Your task to perform on an android device: Add "corsair k70" to the cart on target.com Image 0: 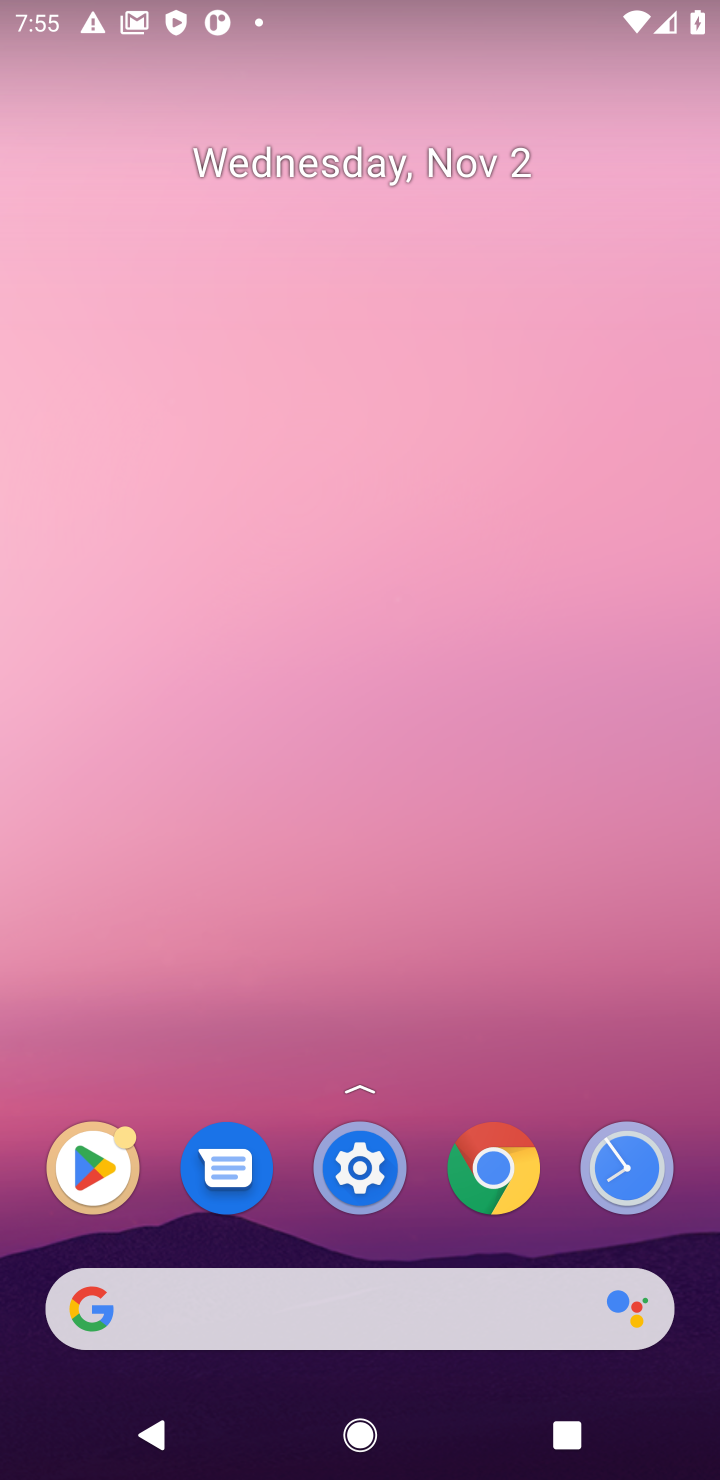
Step 0: drag from (484, 385) to (502, 164)
Your task to perform on an android device: Add "corsair k70" to the cart on target.com Image 1: 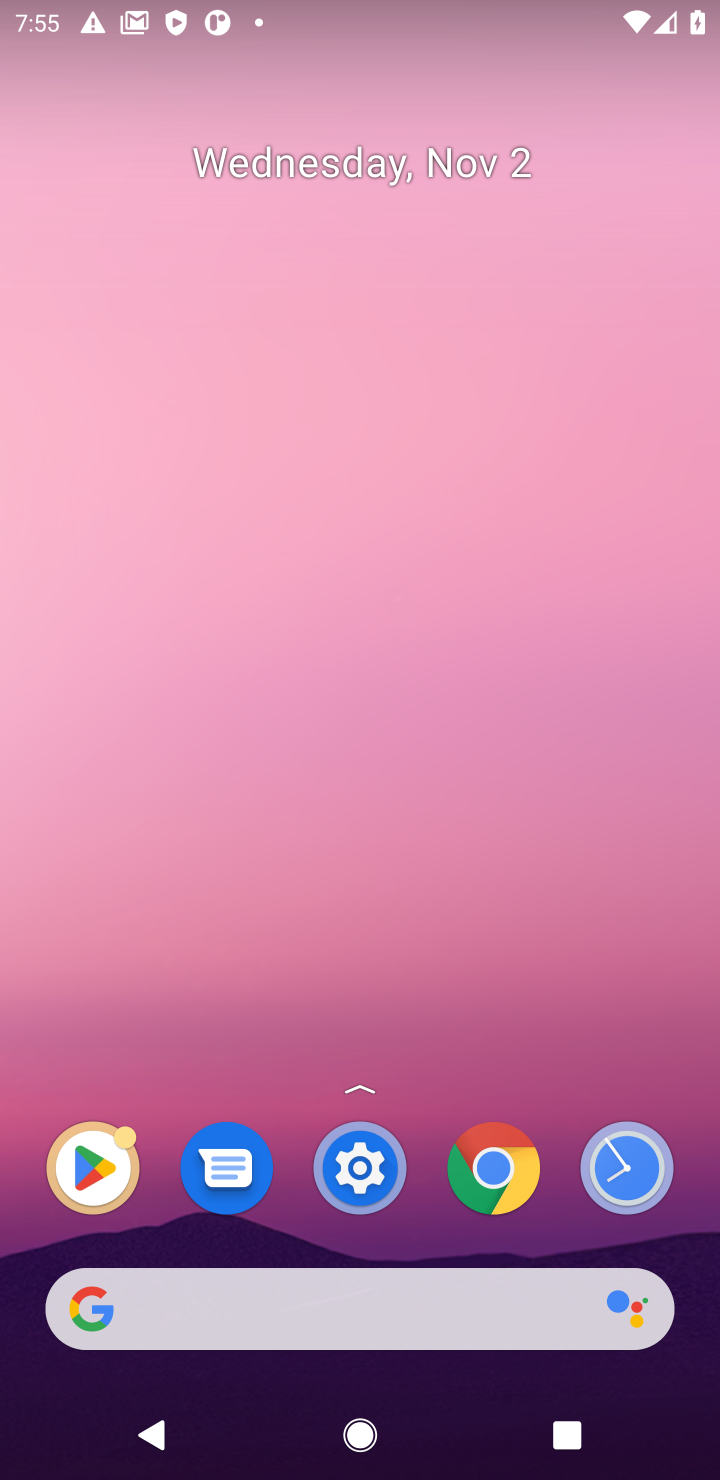
Step 1: drag from (408, 1032) to (491, 233)
Your task to perform on an android device: Add "corsair k70" to the cart on target.com Image 2: 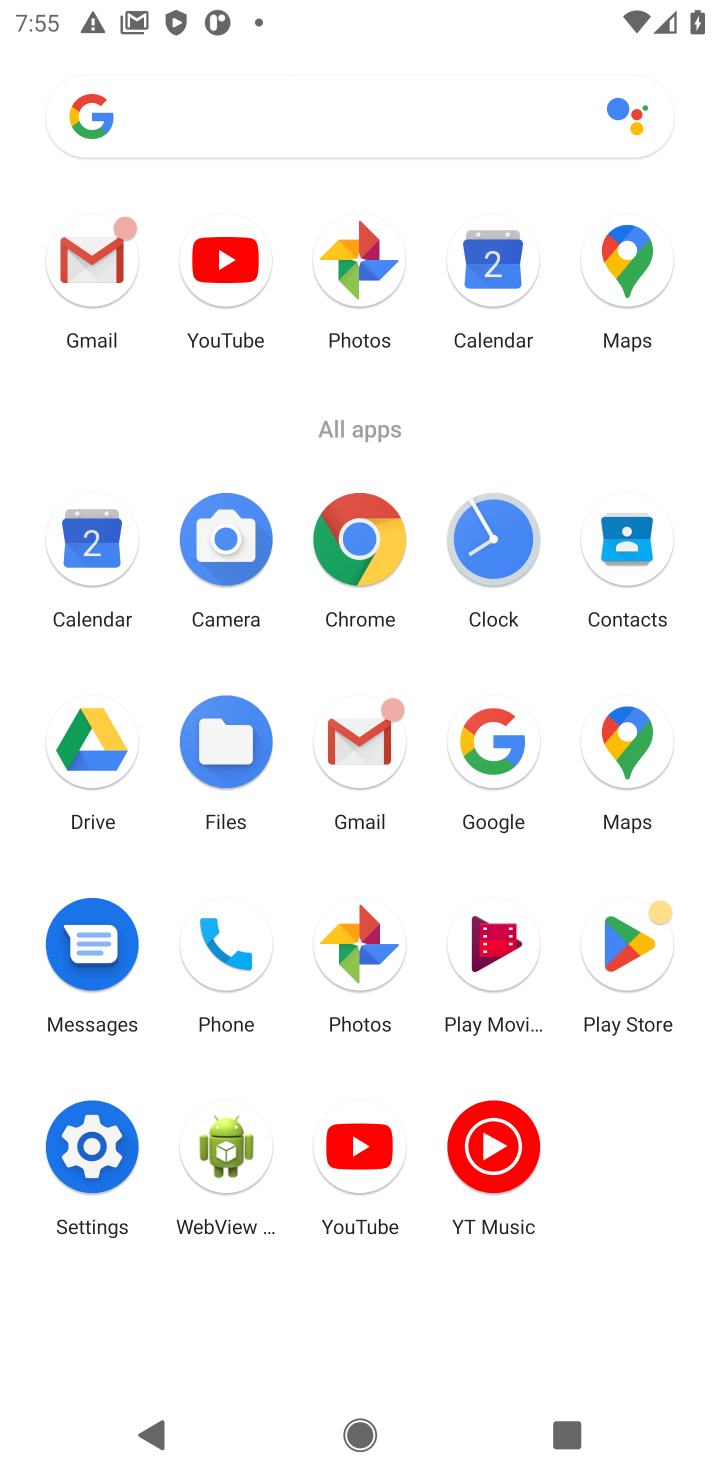
Step 2: click (361, 535)
Your task to perform on an android device: Add "corsair k70" to the cart on target.com Image 3: 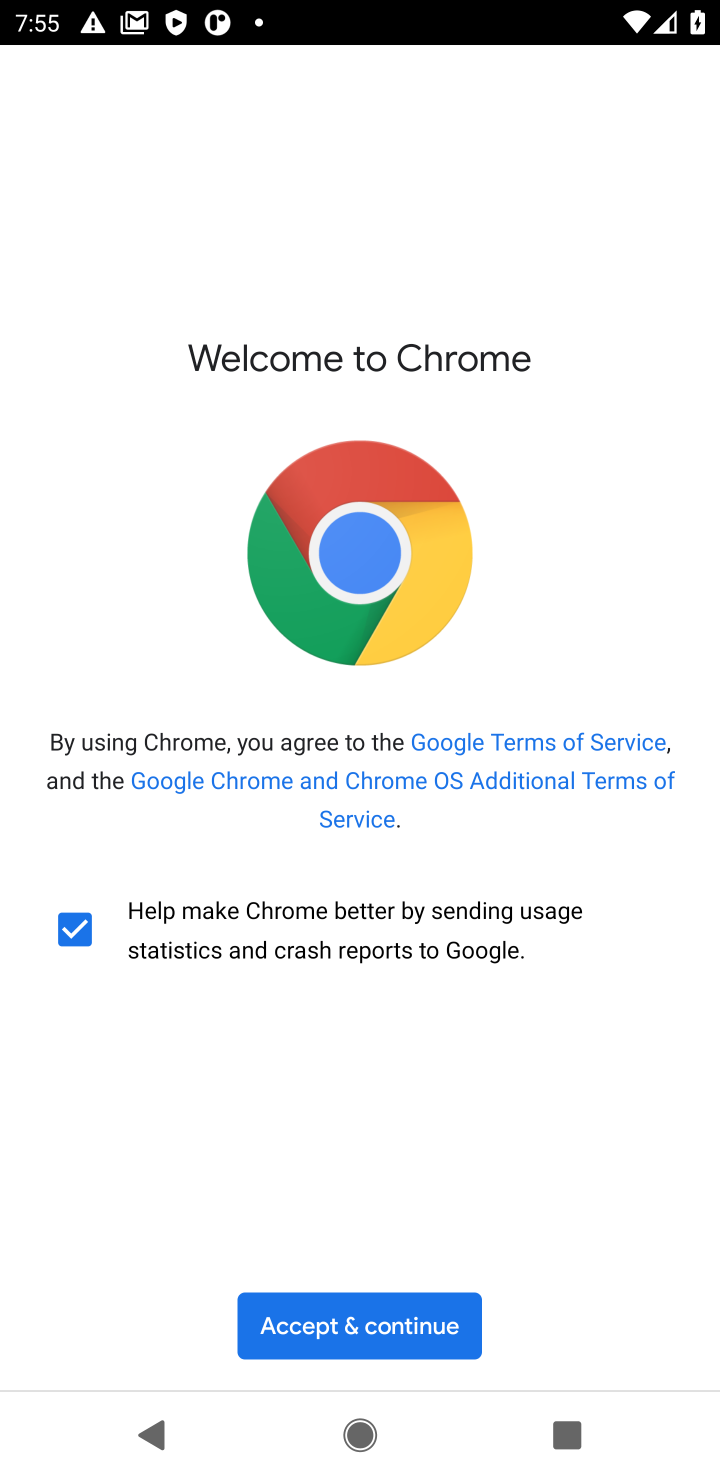
Step 3: click (349, 1318)
Your task to perform on an android device: Add "corsair k70" to the cart on target.com Image 4: 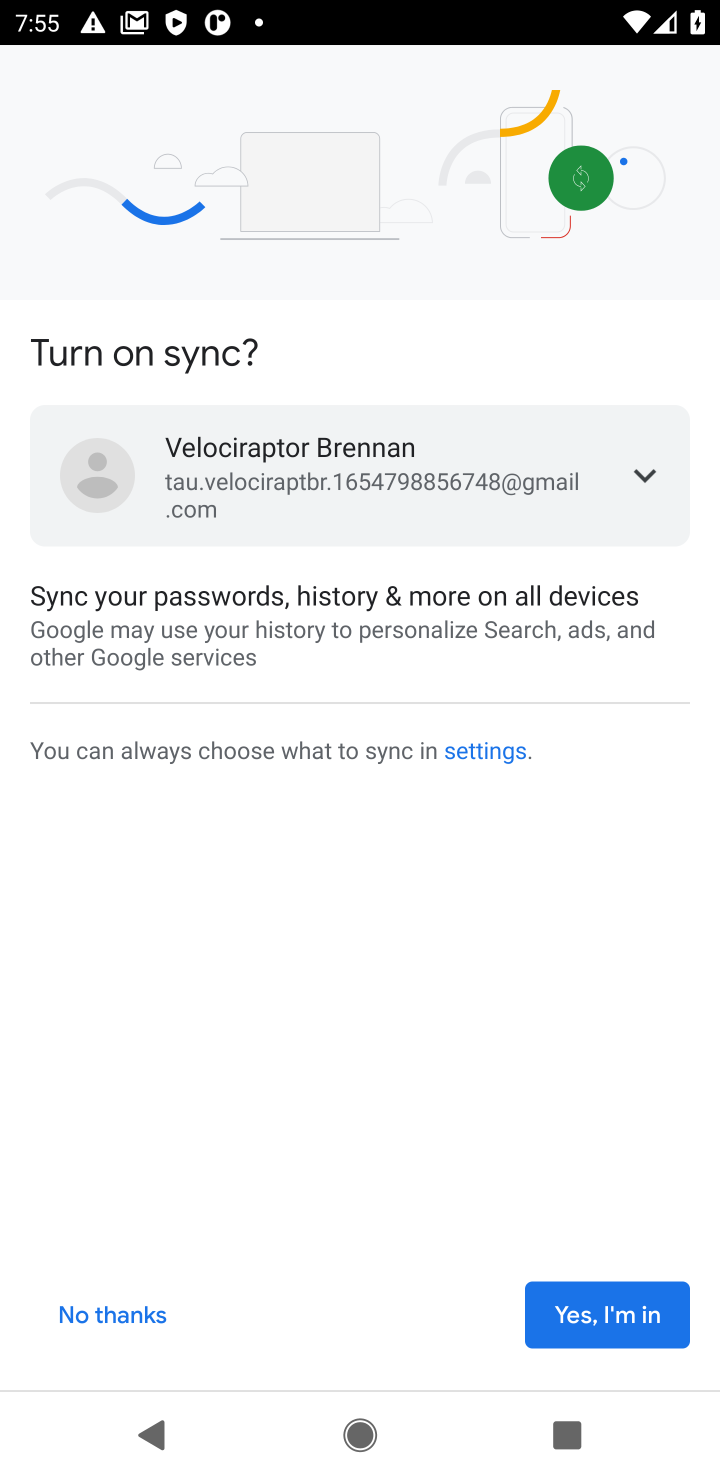
Step 4: click (661, 1321)
Your task to perform on an android device: Add "corsair k70" to the cart on target.com Image 5: 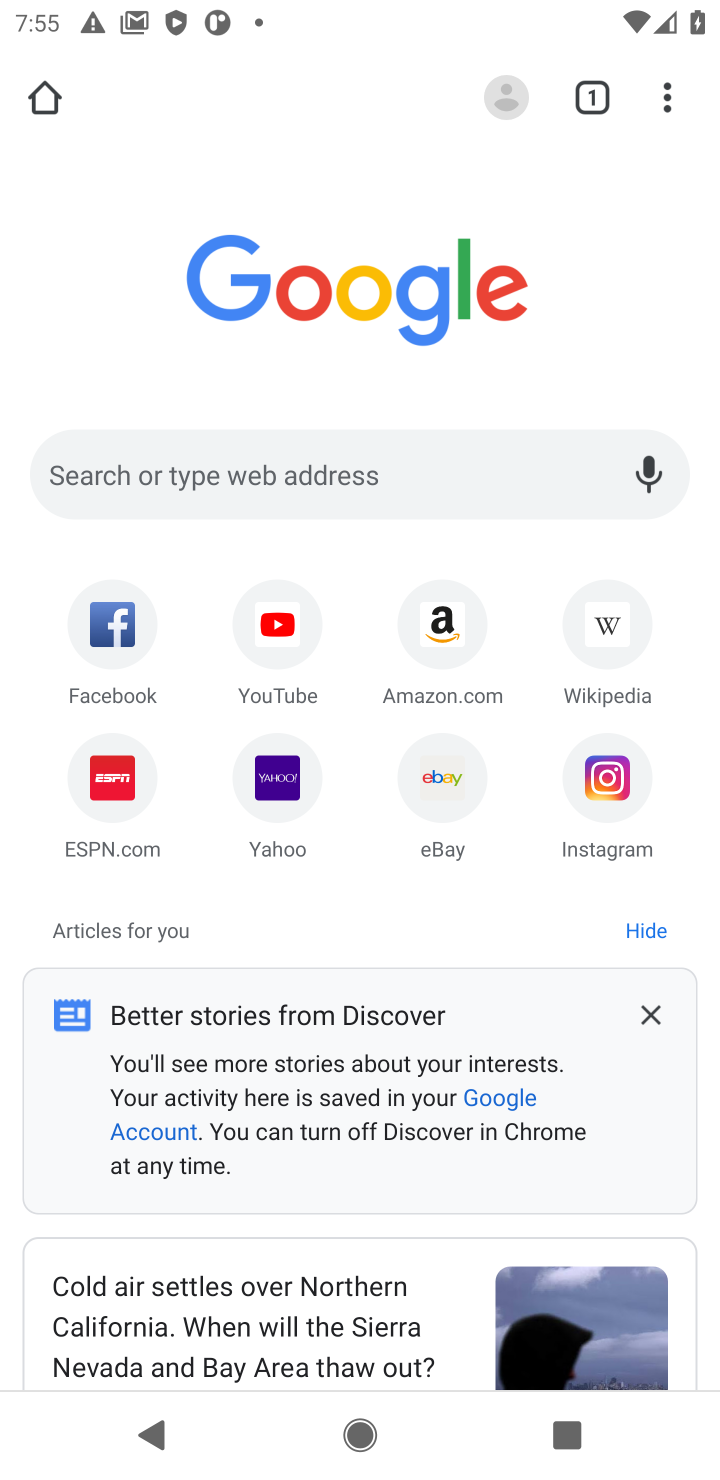
Step 5: click (236, 455)
Your task to perform on an android device: Add "corsair k70" to the cart on target.com Image 6: 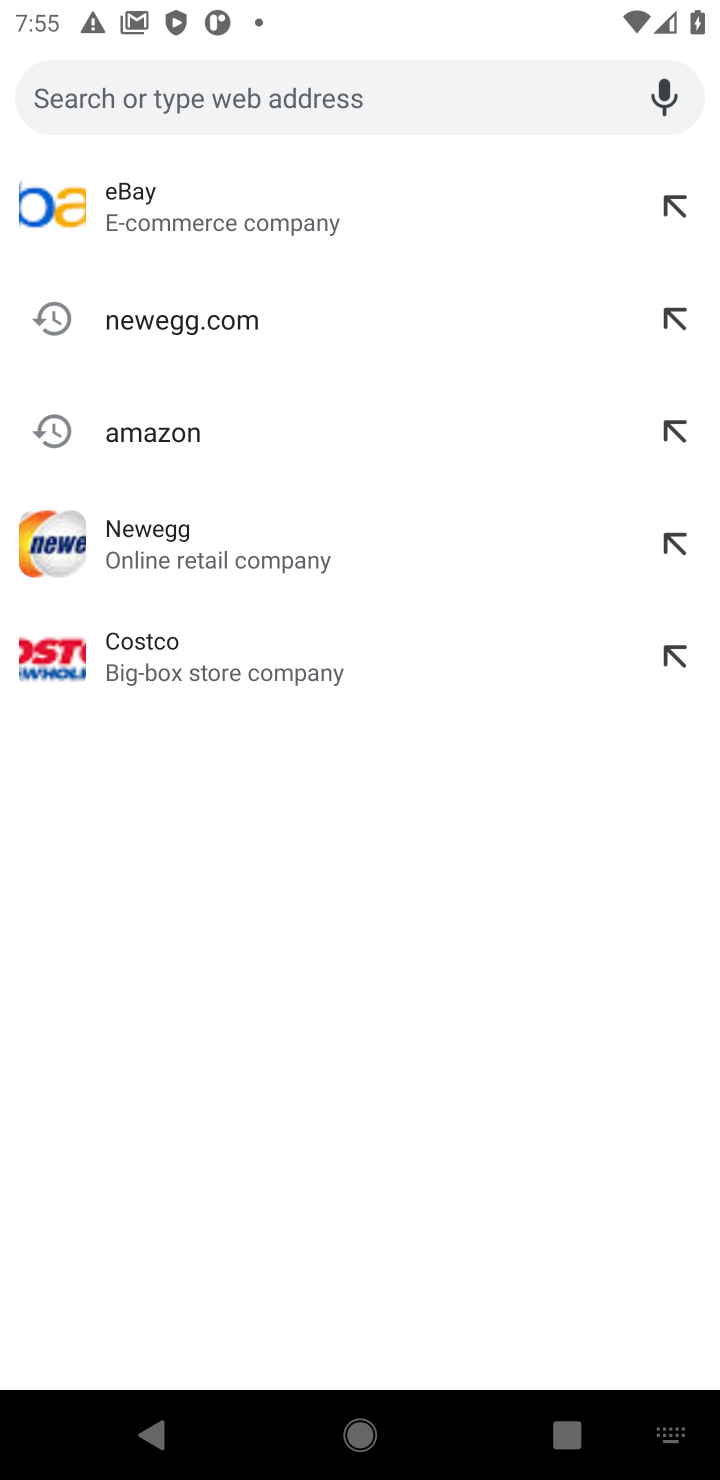
Step 6: type "target"
Your task to perform on an android device: Add "corsair k70" to the cart on target.com Image 7: 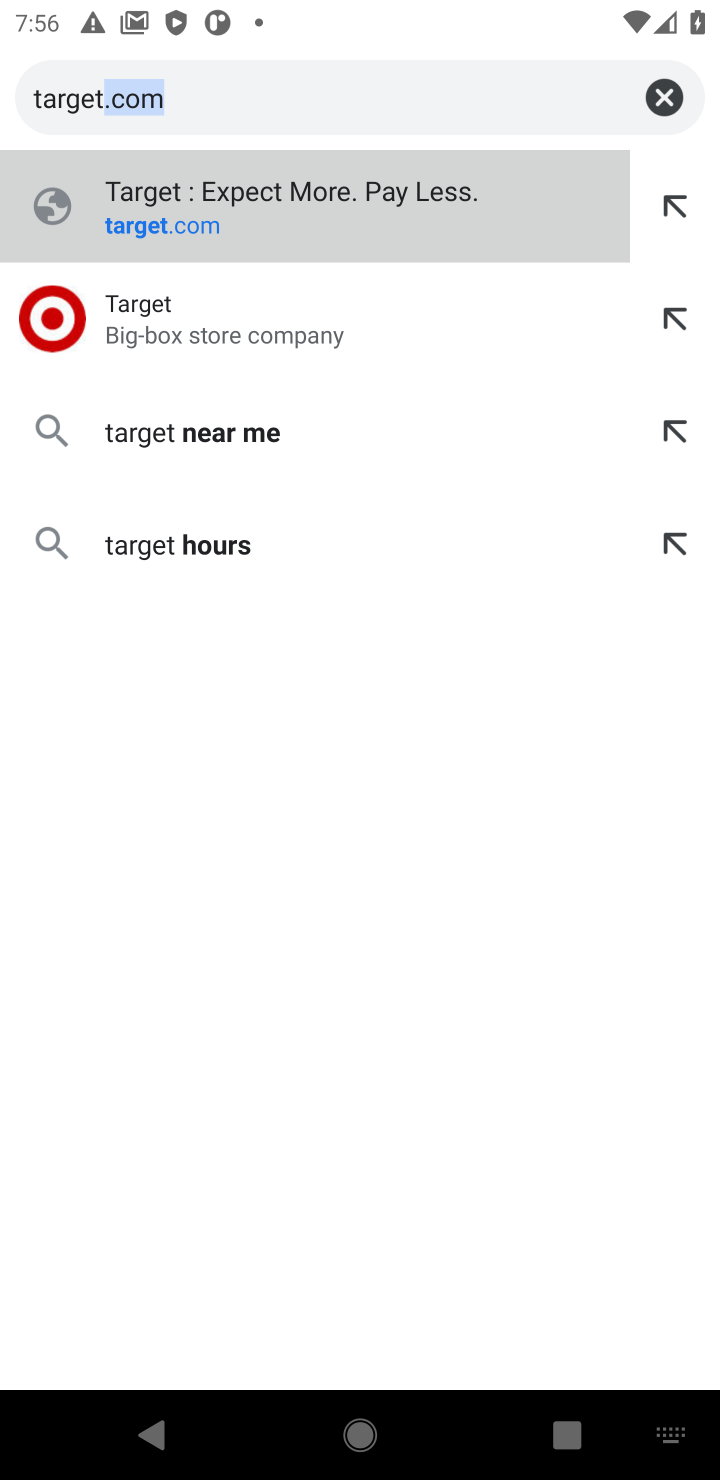
Step 7: type ""
Your task to perform on an android device: Add "corsair k70" to the cart on target.com Image 8: 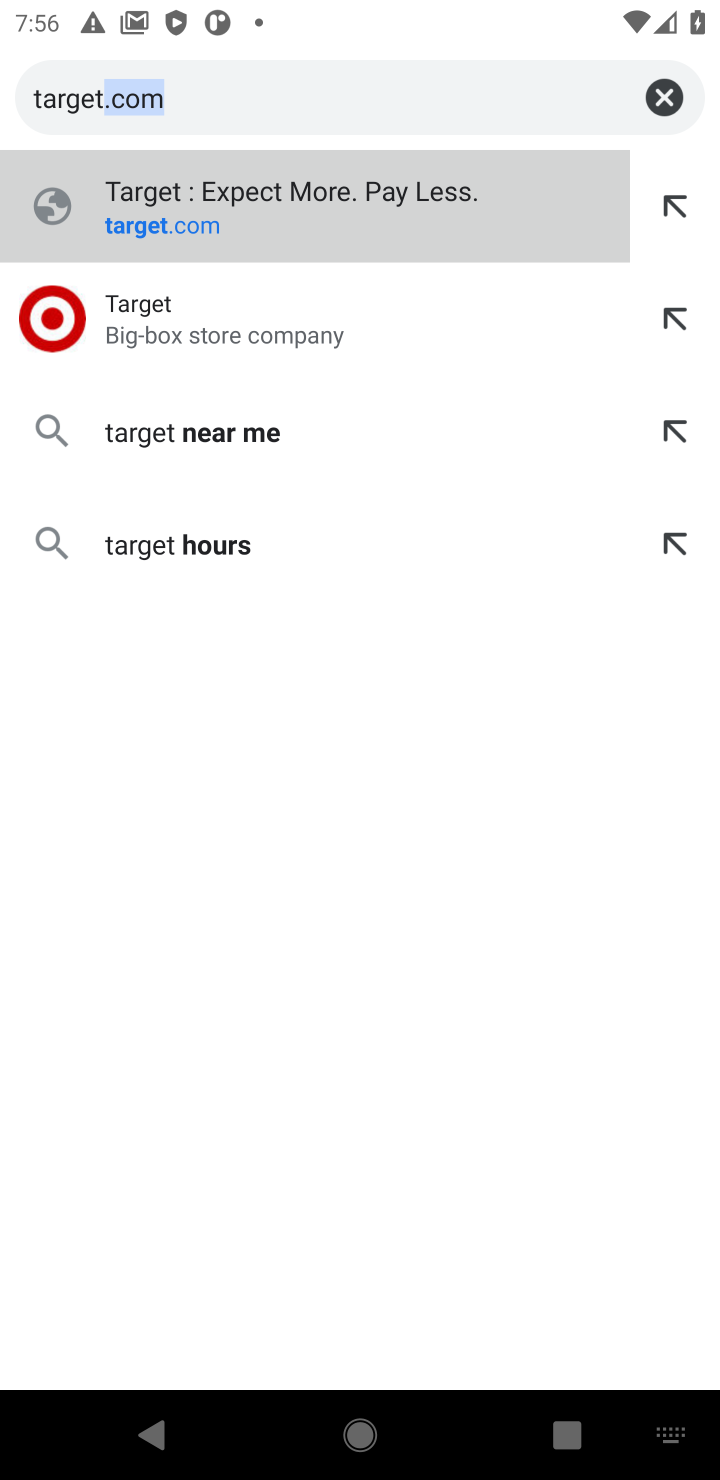
Step 8: click (196, 313)
Your task to perform on an android device: Add "corsair k70" to the cart on target.com Image 9: 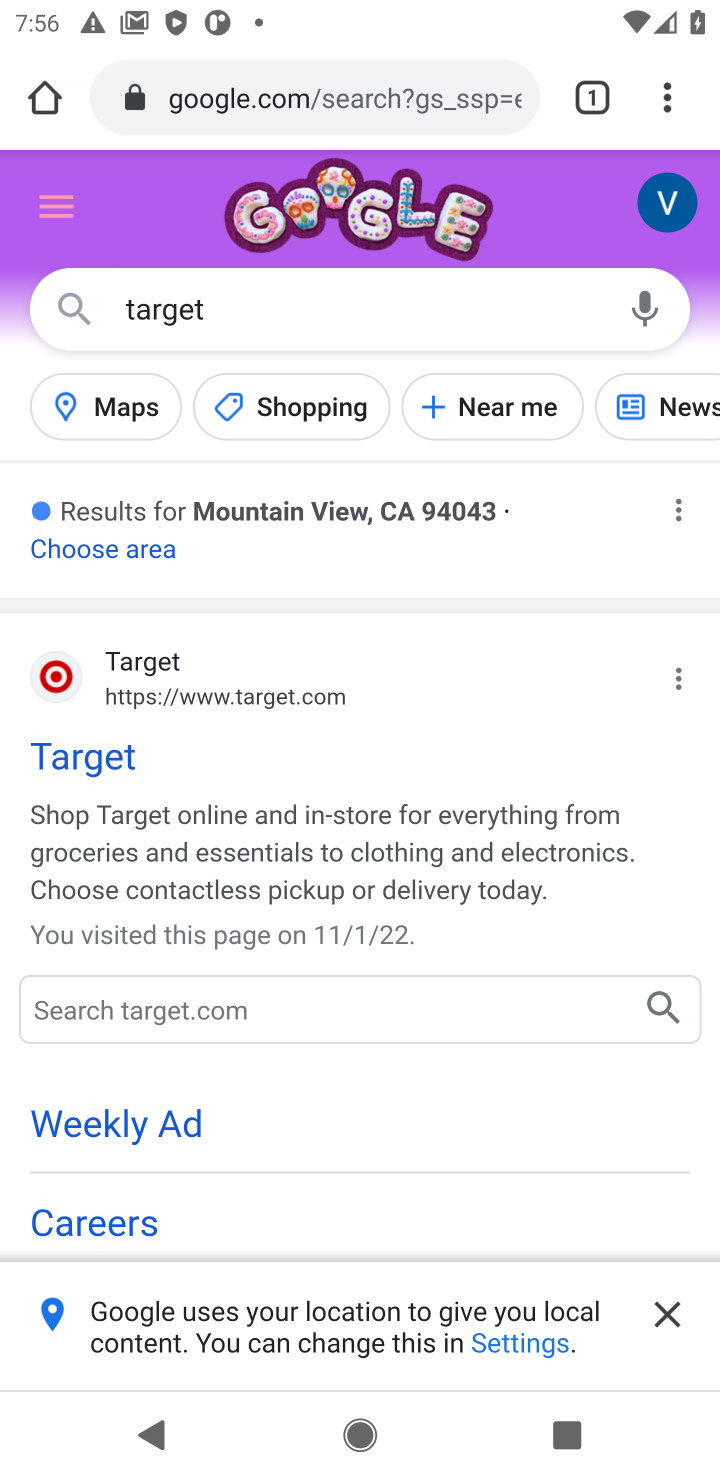
Step 9: click (82, 758)
Your task to perform on an android device: Add "corsair k70" to the cart on target.com Image 10: 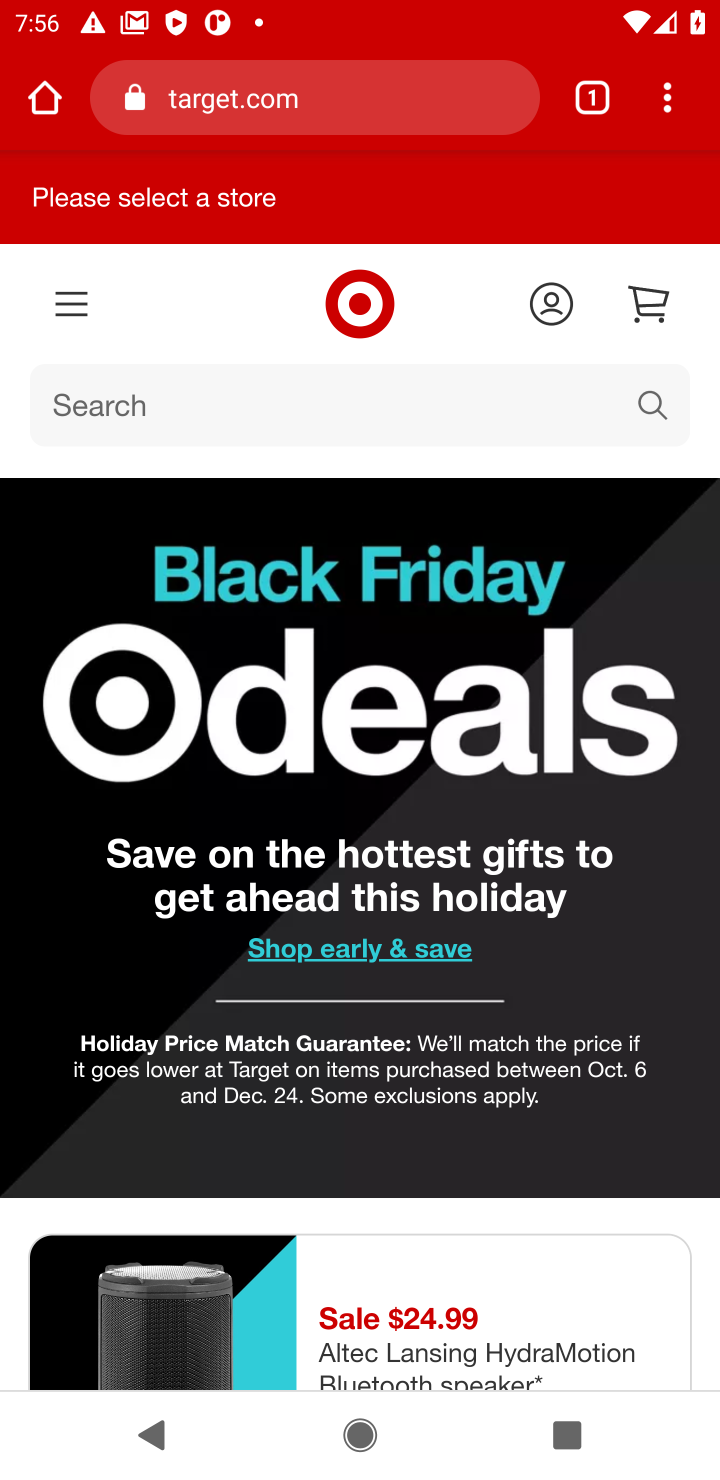
Step 10: click (125, 410)
Your task to perform on an android device: Add "corsair k70" to the cart on target.com Image 11: 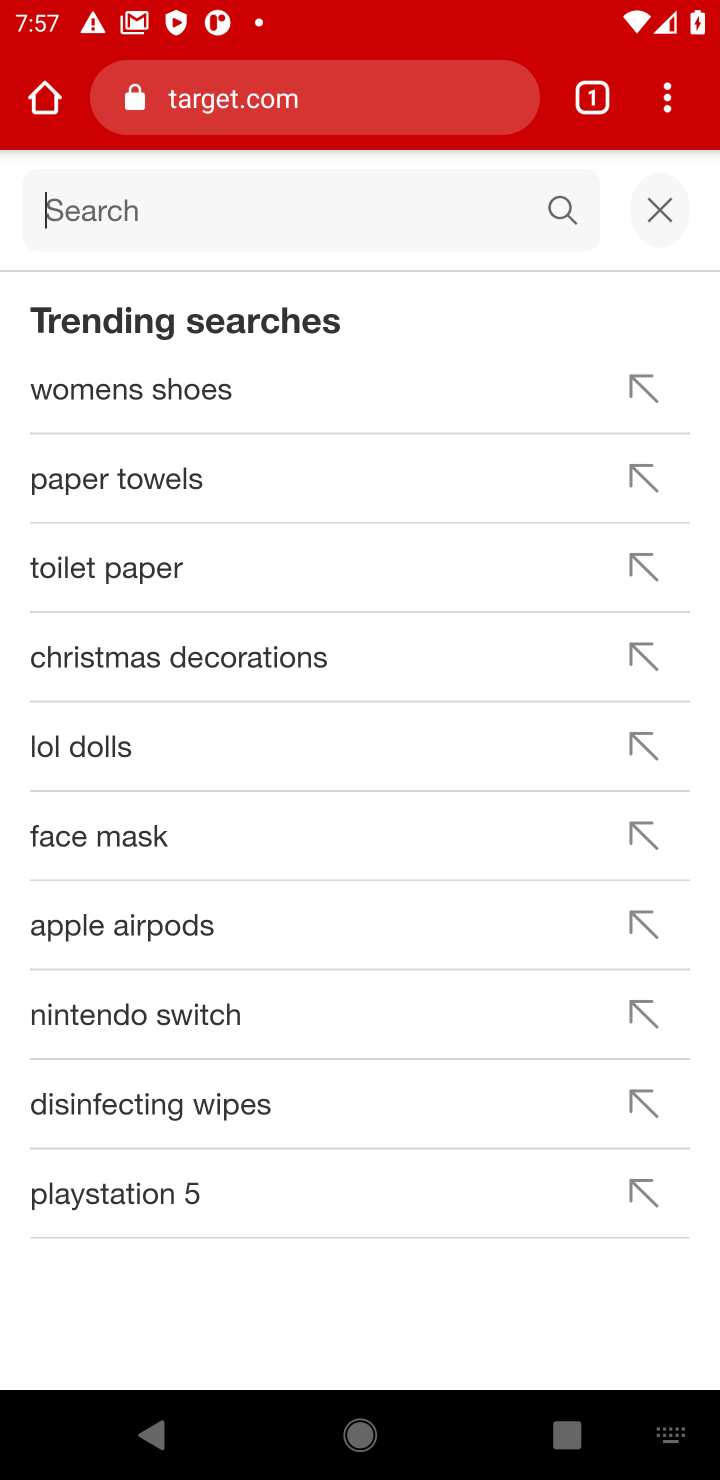
Step 11: type "corsair k70"
Your task to perform on an android device: Add "corsair k70" to the cart on target.com Image 12: 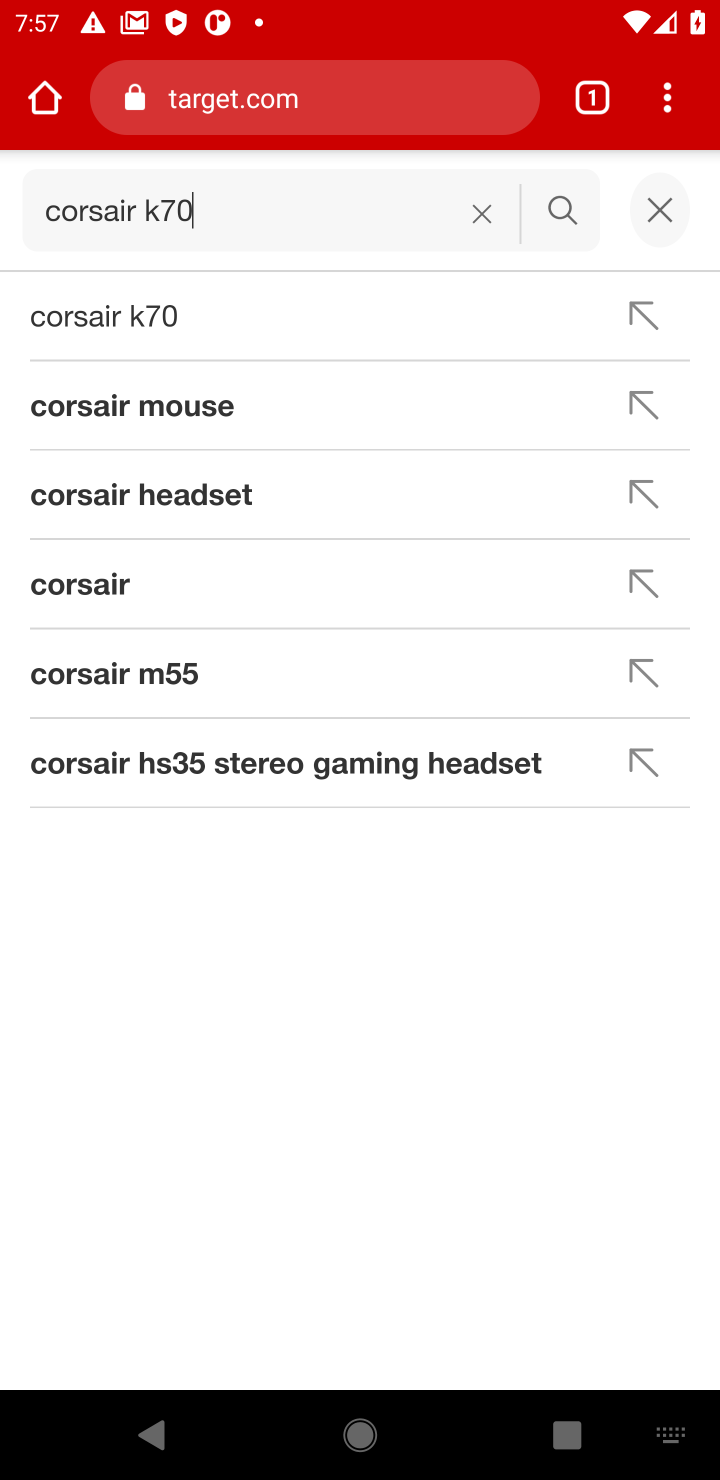
Step 12: click (161, 325)
Your task to perform on an android device: Add "corsair k70" to the cart on target.com Image 13: 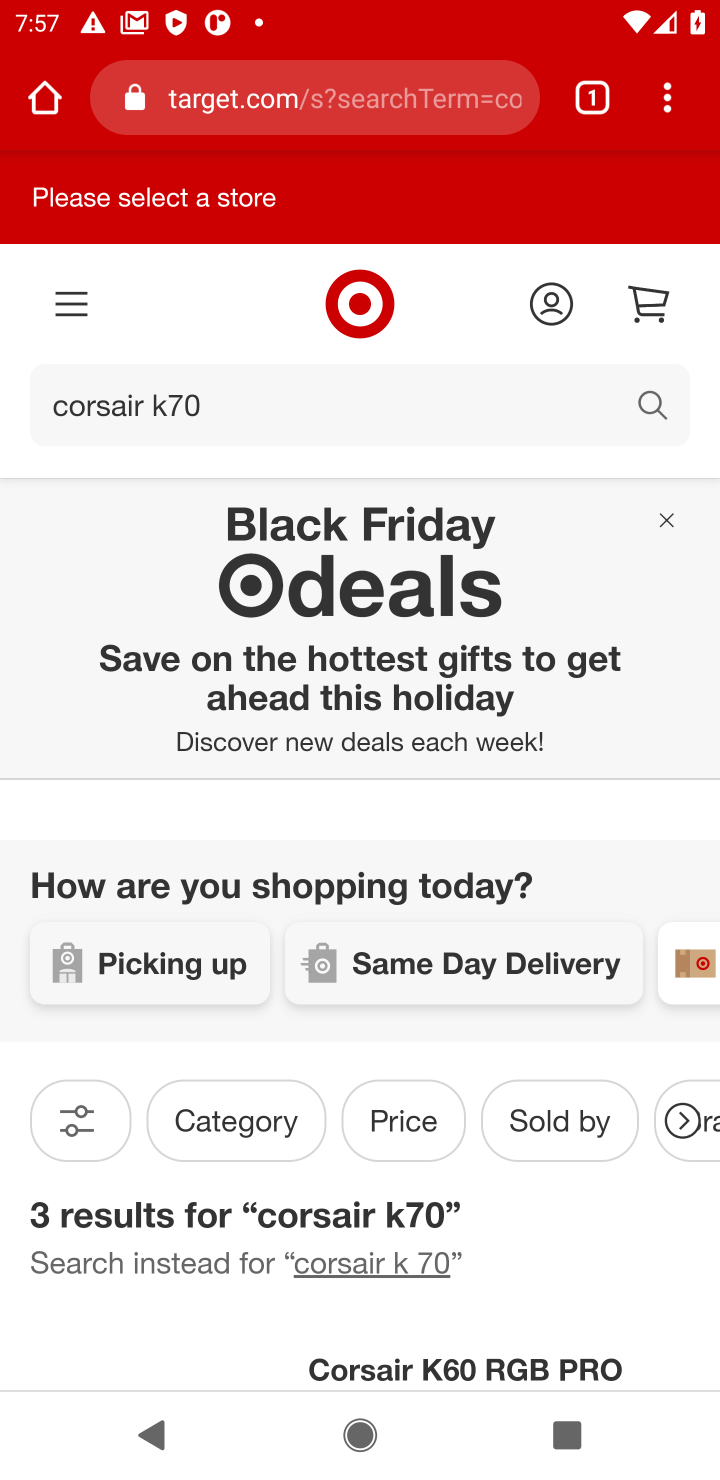
Step 13: drag from (279, 1056) to (406, 294)
Your task to perform on an android device: Add "corsair k70" to the cart on target.com Image 14: 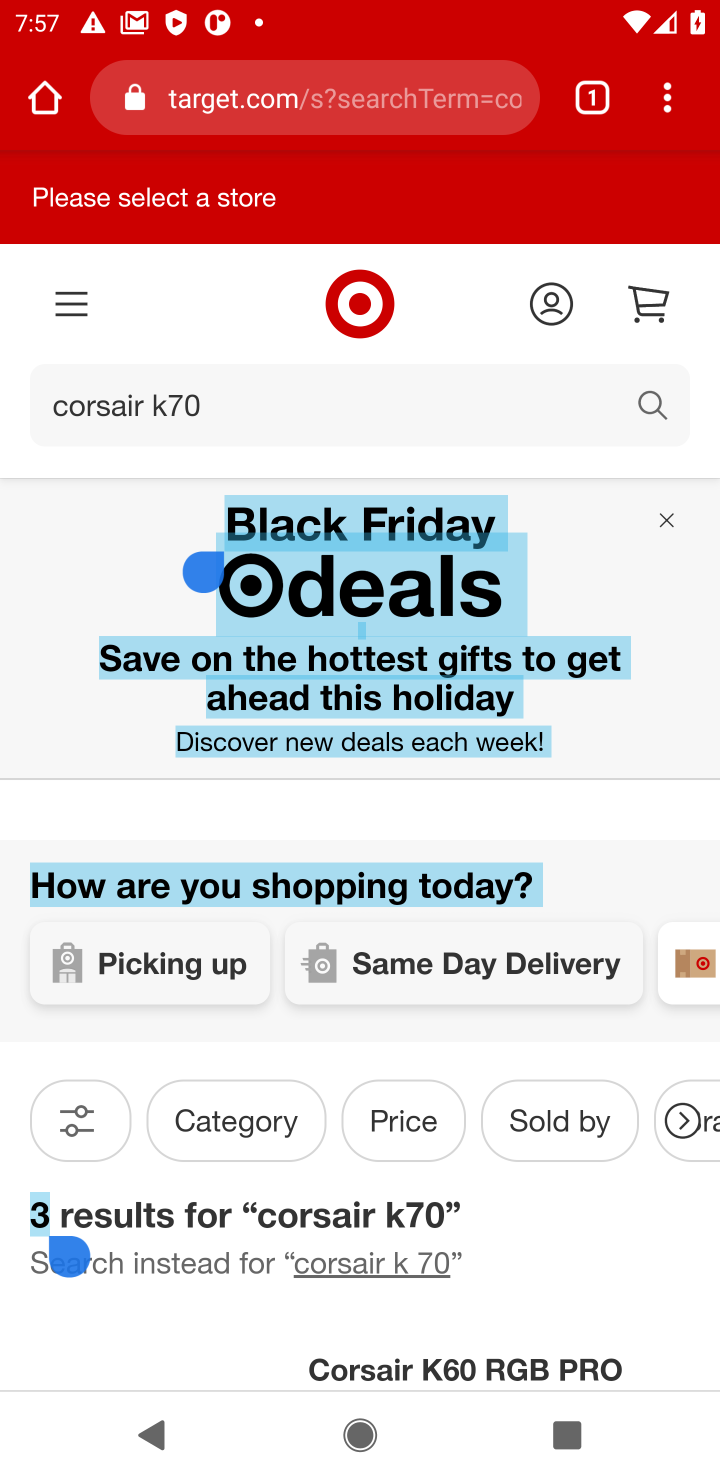
Step 14: click (480, 796)
Your task to perform on an android device: Add "corsair k70" to the cart on target.com Image 15: 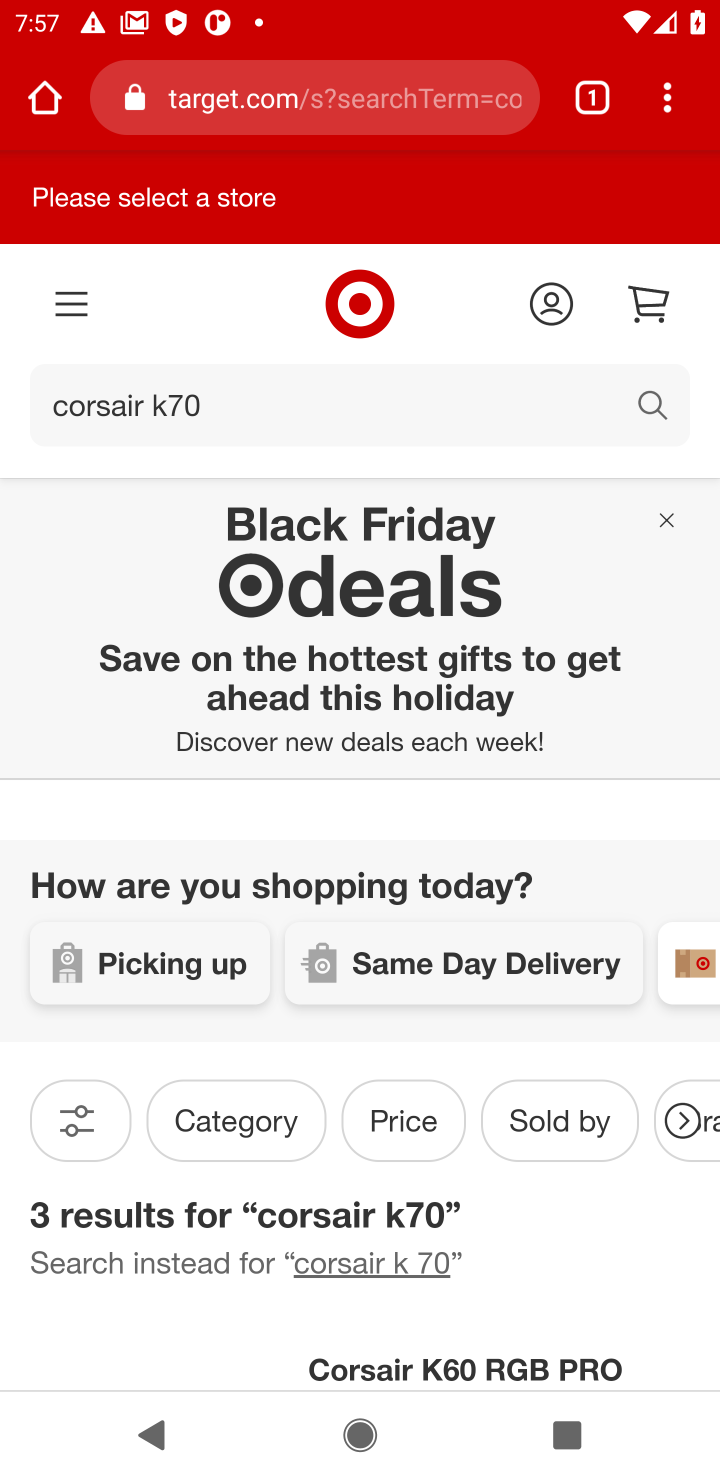
Step 15: task complete